Your task to perform on an android device: open app "Adobe Express: Graphic Design" (install if not already installed), go to login, and select forgot password Image 0: 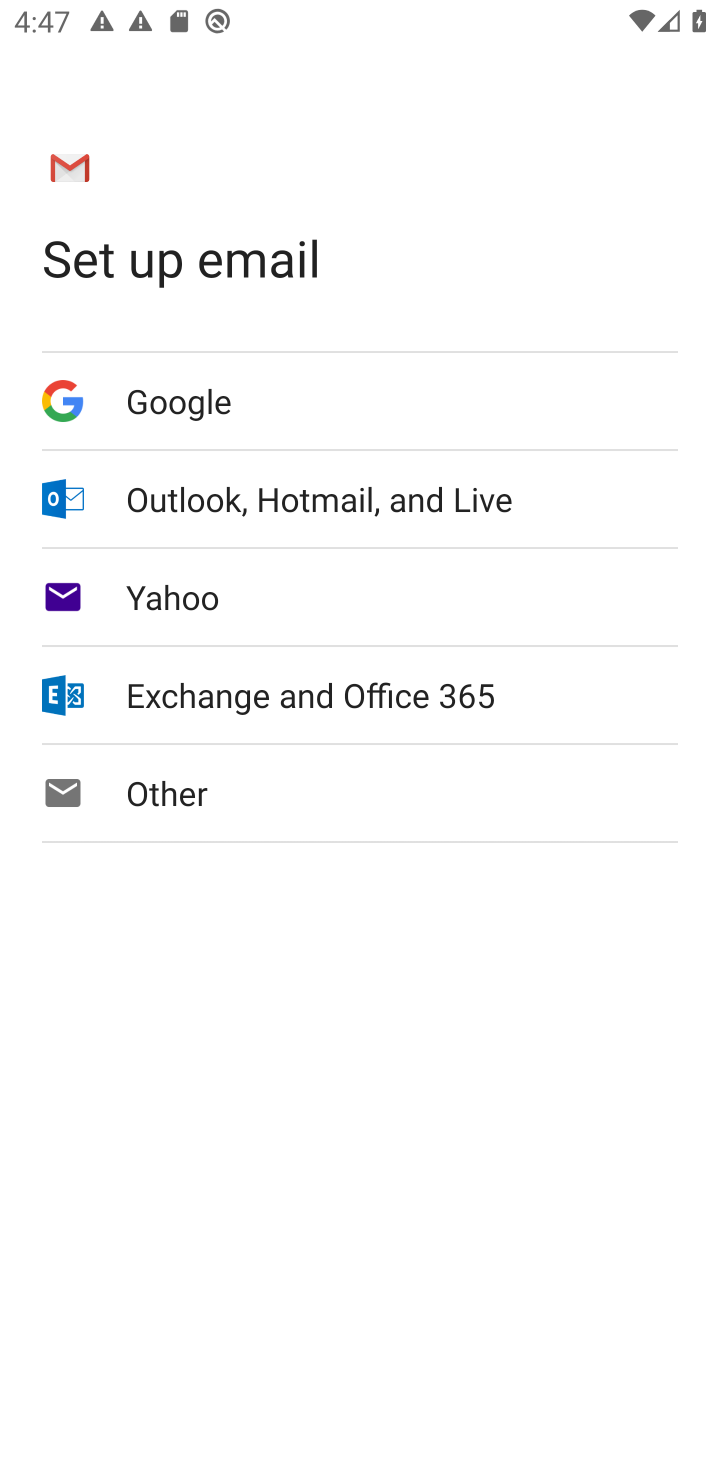
Step 0: press back button
Your task to perform on an android device: open app "Adobe Express: Graphic Design" (install if not already installed), go to login, and select forgot password Image 1: 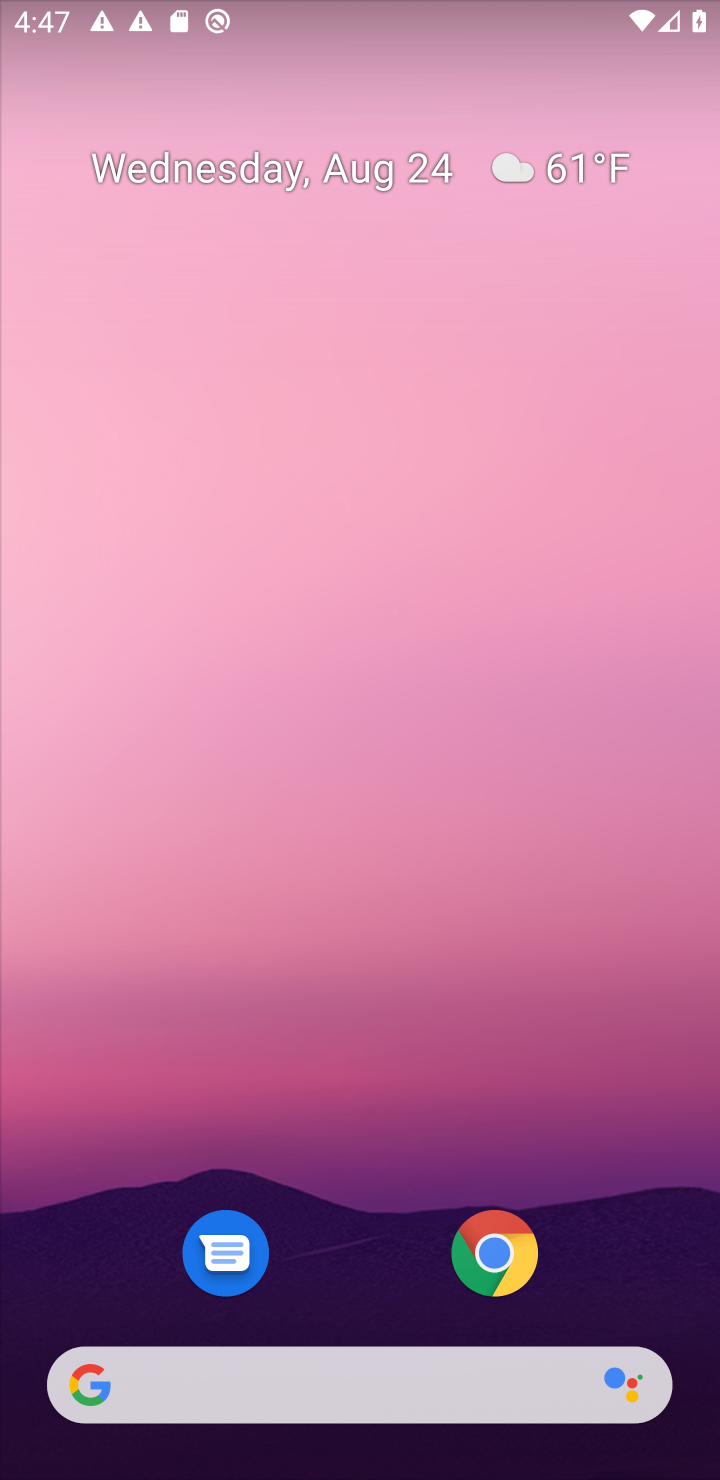
Step 1: drag from (409, 1180) to (435, 265)
Your task to perform on an android device: open app "Adobe Express: Graphic Design" (install if not already installed), go to login, and select forgot password Image 2: 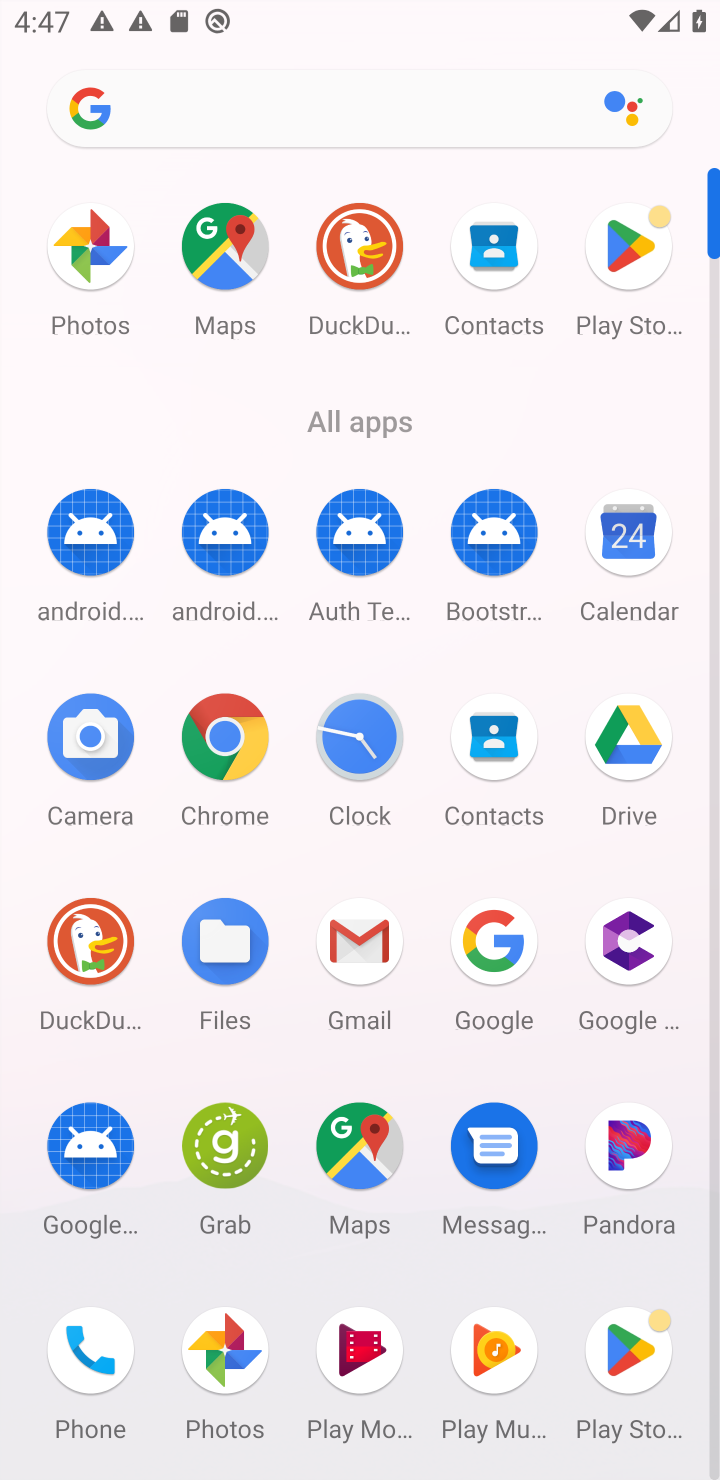
Step 2: click (627, 226)
Your task to perform on an android device: open app "Adobe Express: Graphic Design" (install if not already installed), go to login, and select forgot password Image 3: 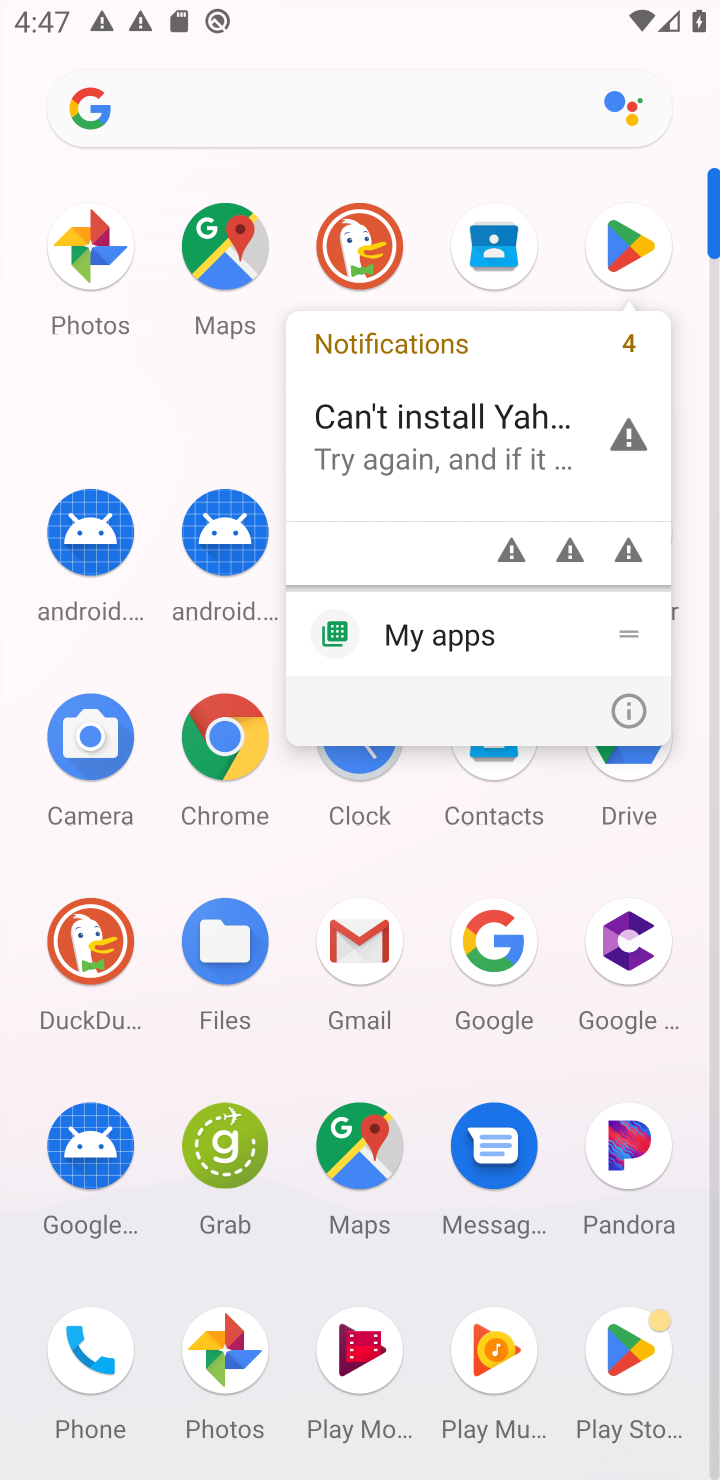
Step 3: click (631, 236)
Your task to perform on an android device: open app "Adobe Express: Graphic Design" (install if not already installed), go to login, and select forgot password Image 4: 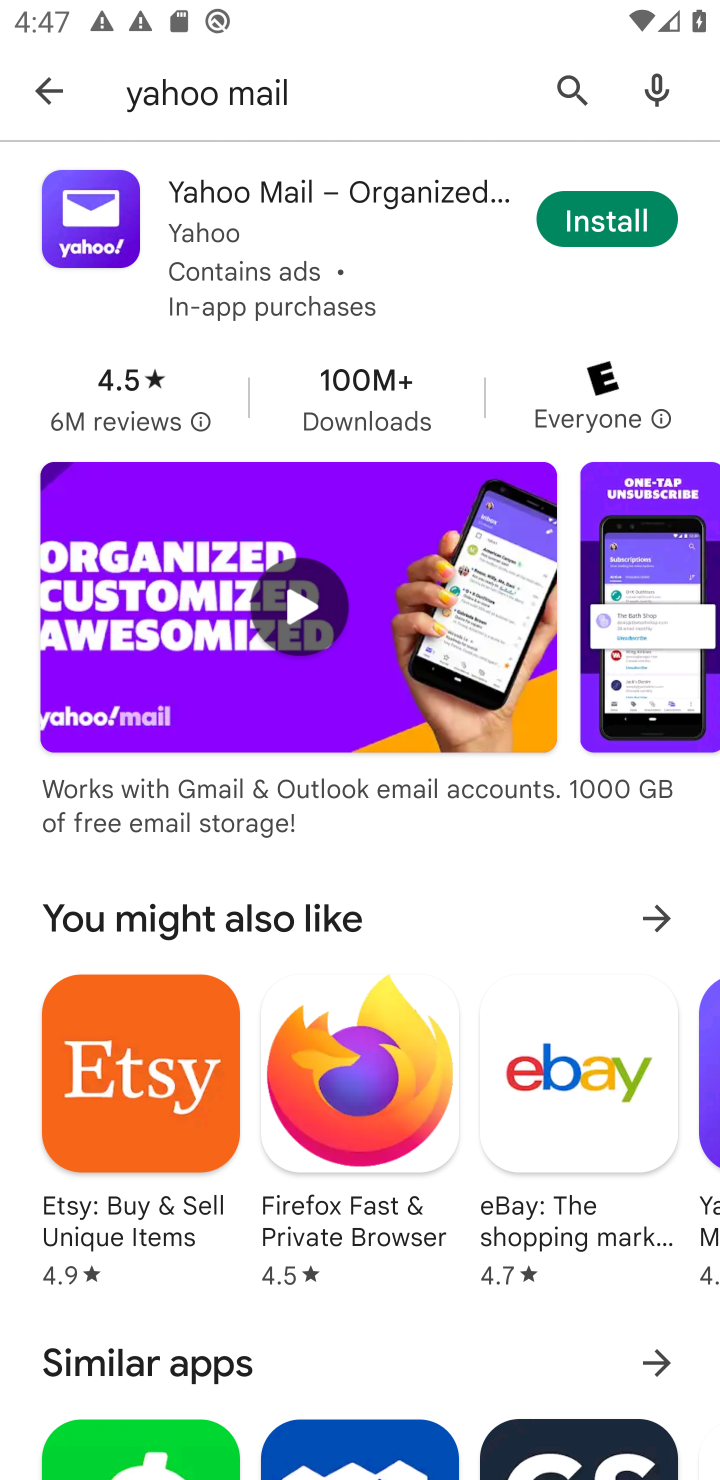
Step 4: click (570, 97)
Your task to perform on an android device: open app "Adobe Express: Graphic Design" (install if not already installed), go to login, and select forgot password Image 5: 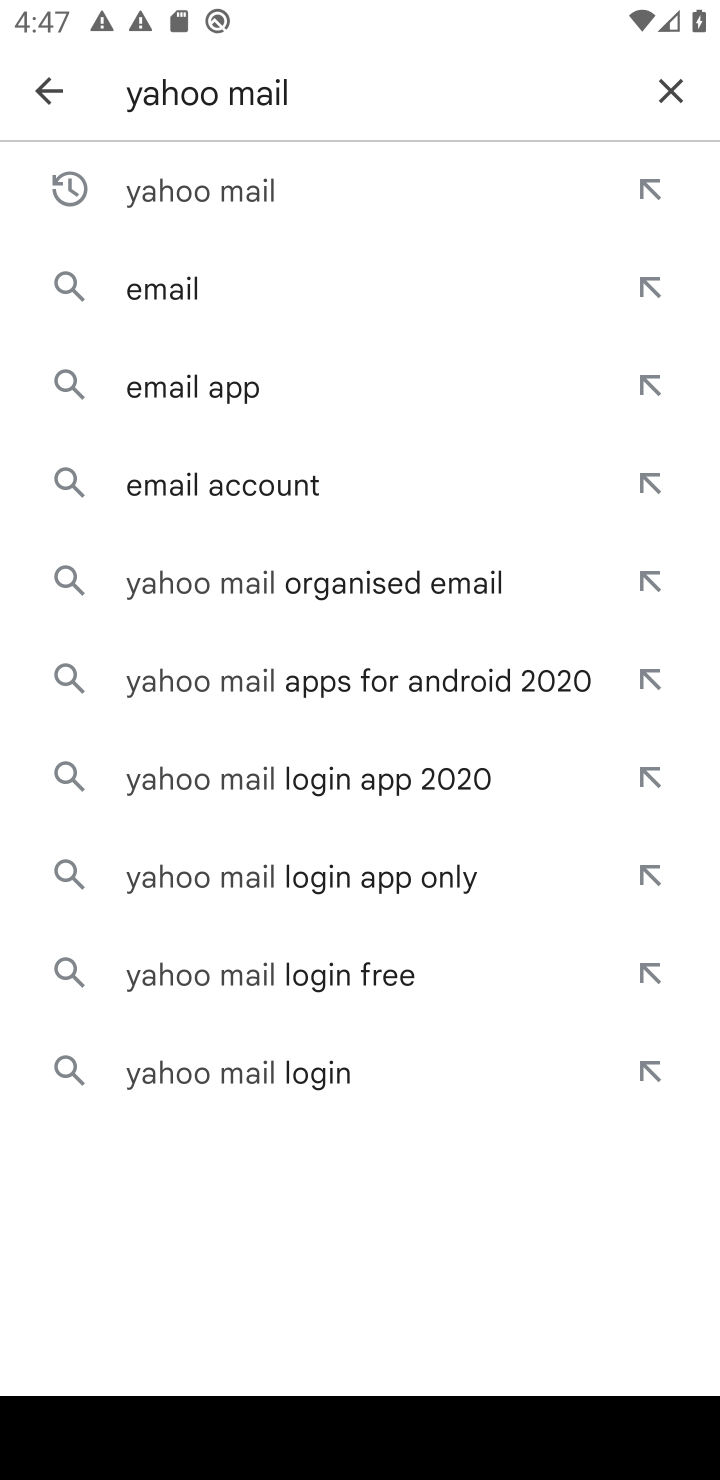
Step 5: click (657, 81)
Your task to perform on an android device: open app "Adobe Express: Graphic Design" (install if not already installed), go to login, and select forgot password Image 6: 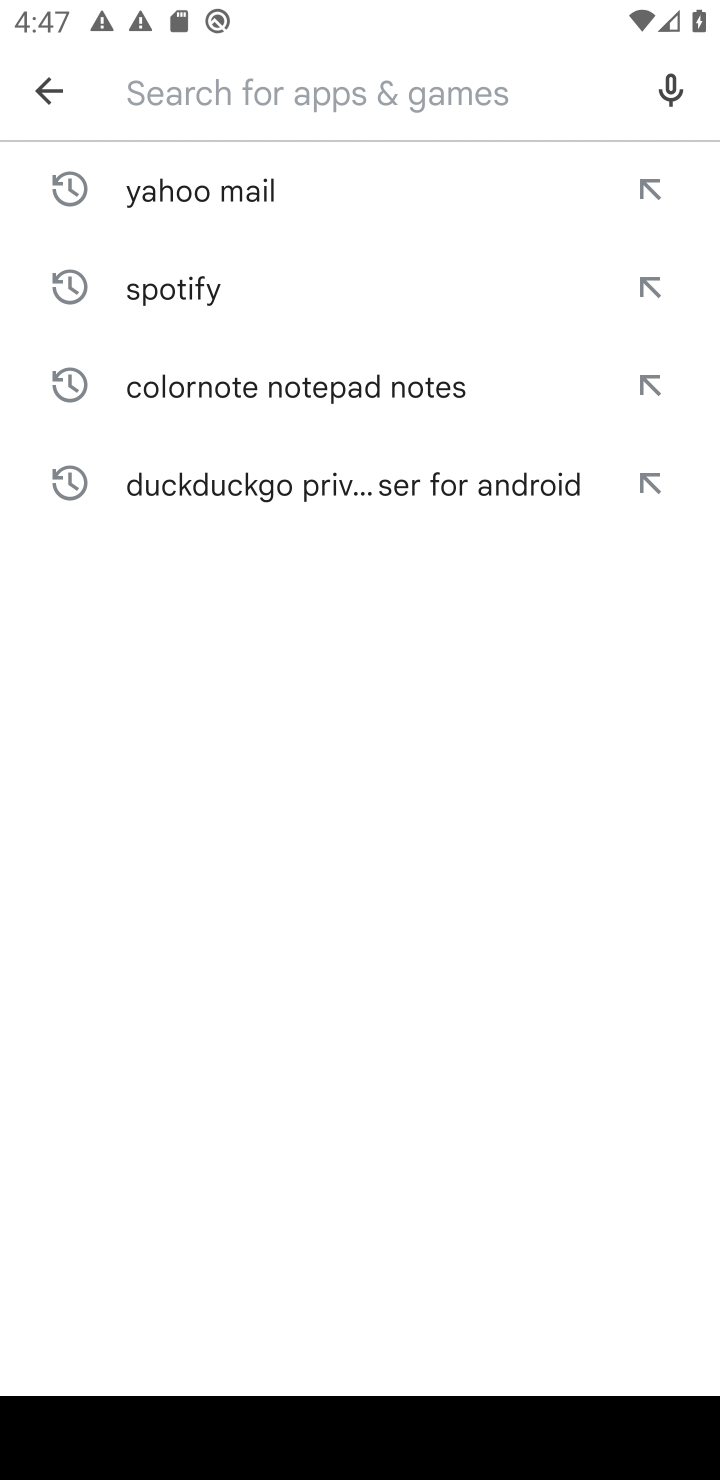
Step 6: click (205, 115)
Your task to perform on an android device: open app "Adobe Express: Graphic Design" (install if not already installed), go to login, and select forgot password Image 7: 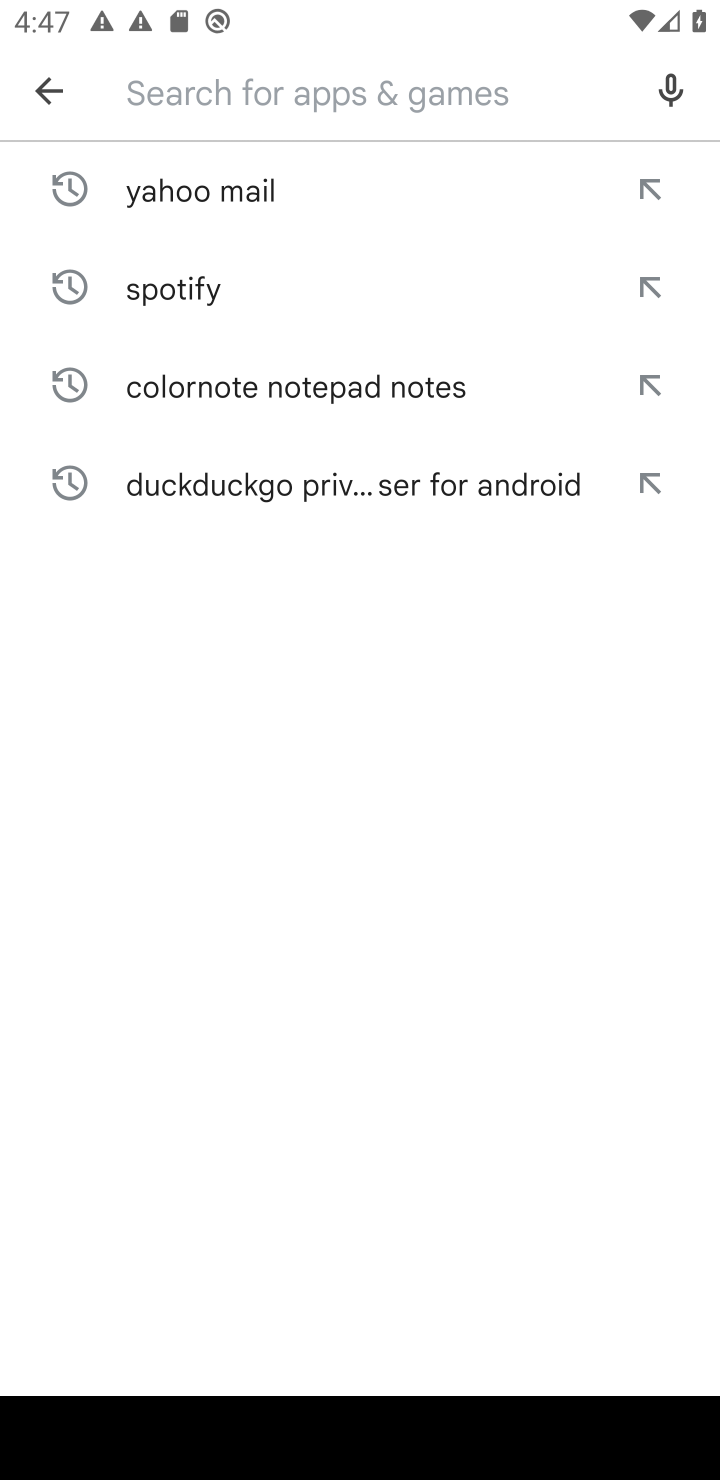
Step 7: type "Adobe Express: Graphic Design"
Your task to perform on an android device: open app "Adobe Express: Graphic Design" (install if not already installed), go to login, and select forgot password Image 8: 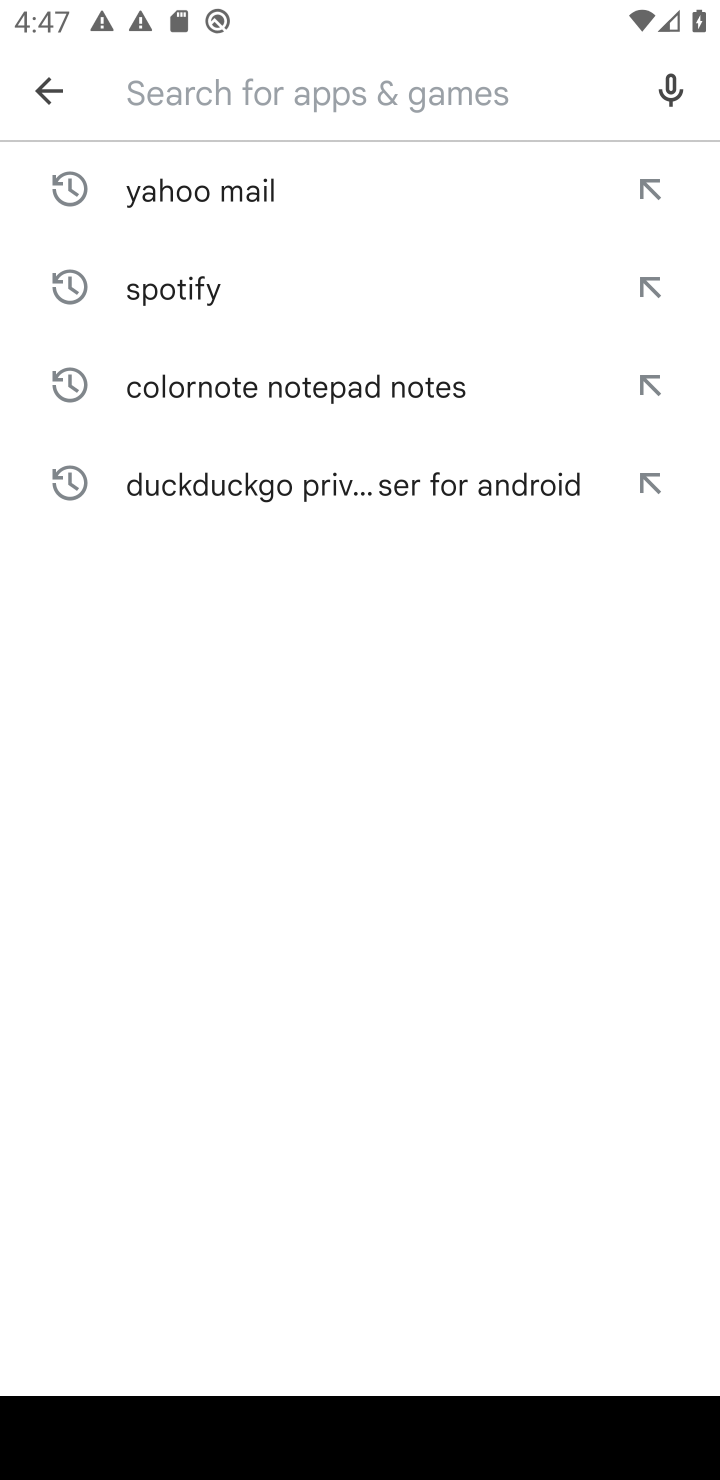
Step 8: click (247, 1031)
Your task to perform on an android device: open app "Adobe Express: Graphic Design" (install if not already installed), go to login, and select forgot password Image 9: 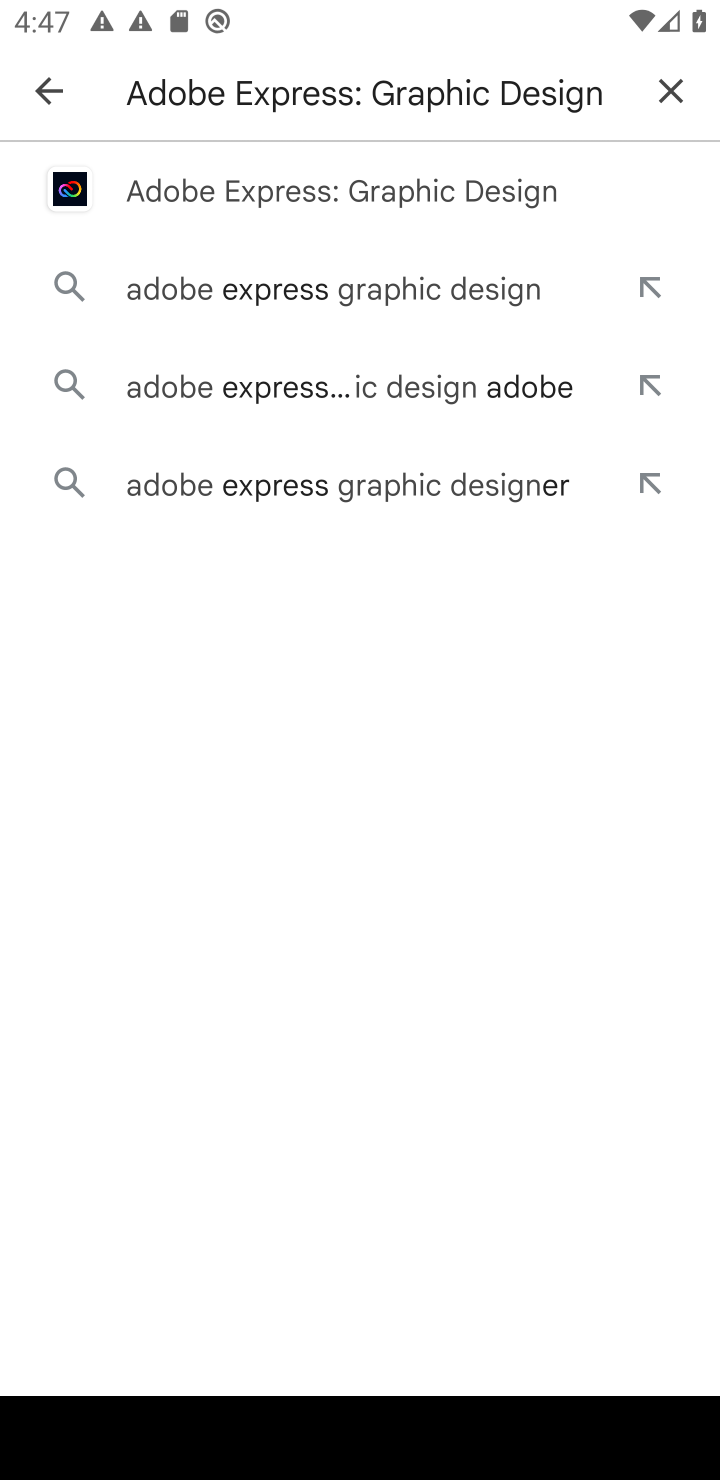
Step 9: click (242, 177)
Your task to perform on an android device: open app "Adobe Express: Graphic Design" (install if not already installed), go to login, and select forgot password Image 10: 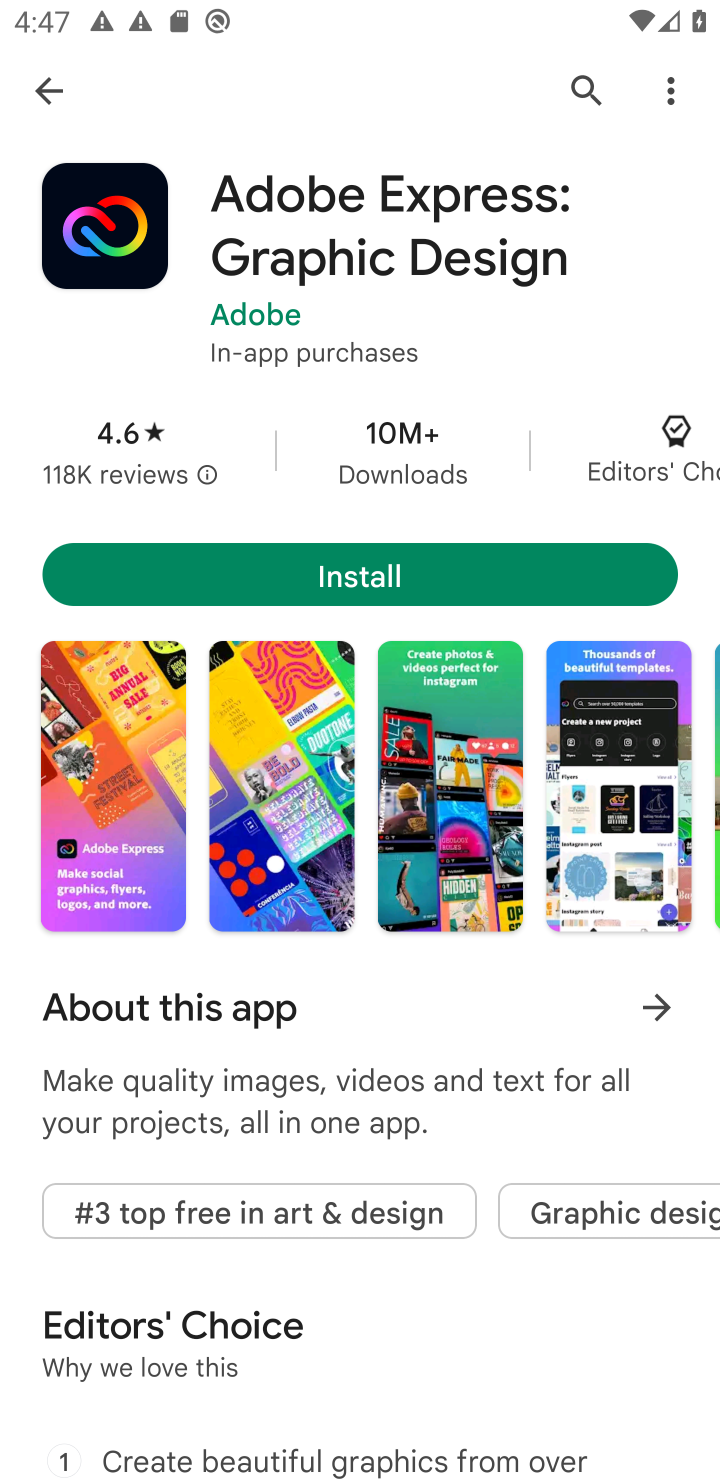
Step 10: click (384, 589)
Your task to perform on an android device: open app "Adobe Express: Graphic Design" (install if not already installed), go to login, and select forgot password Image 11: 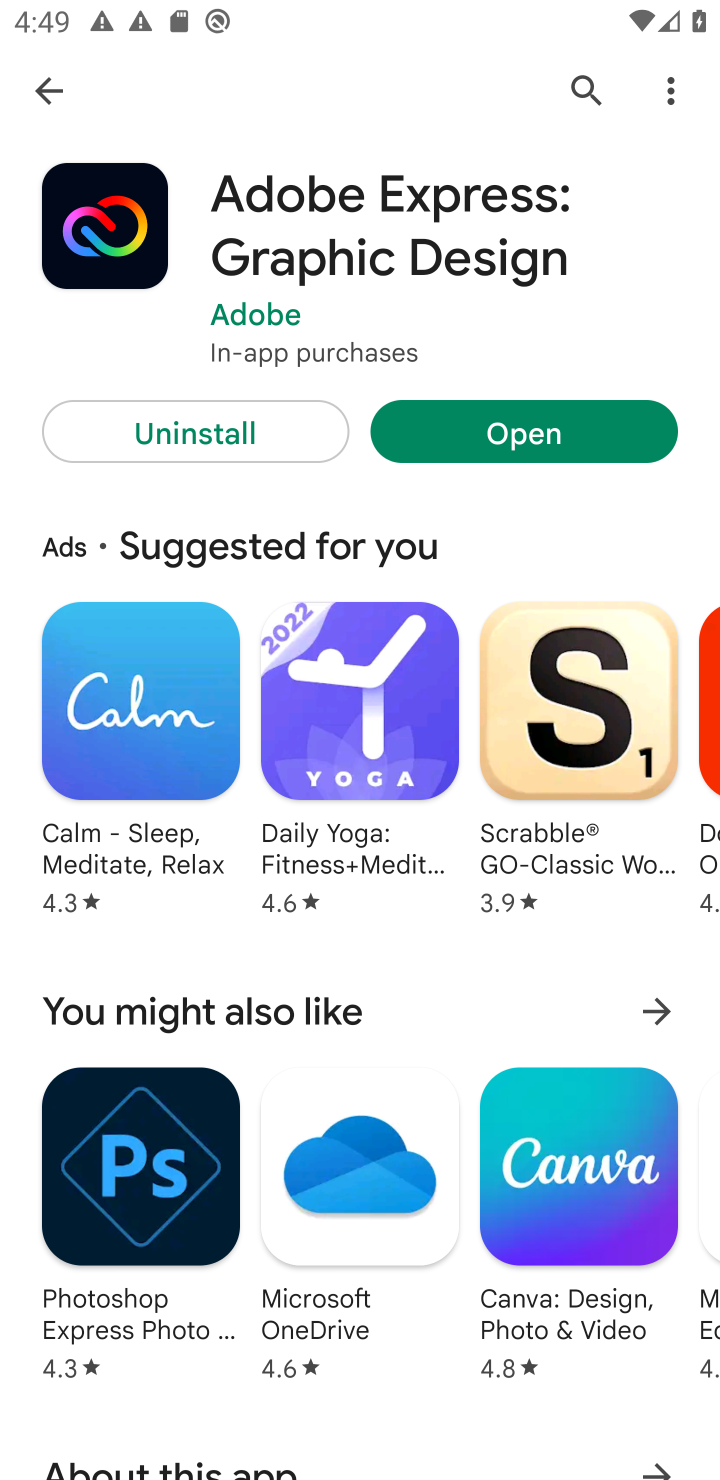
Step 11: click (554, 443)
Your task to perform on an android device: open app "Adobe Express: Graphic Design" (install if not already installed), go to login, and select forgot password Image 12: 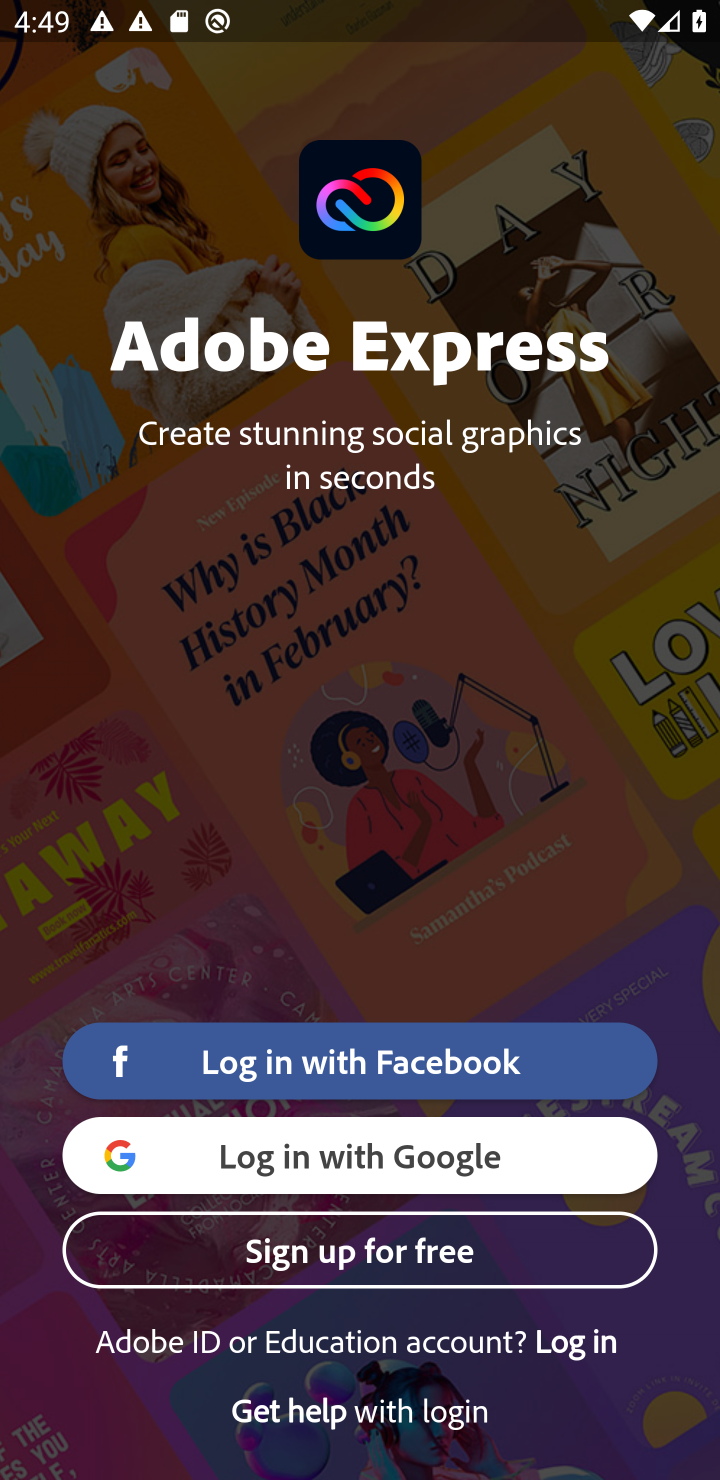
Step 12: click (571, 1343)
Your task to perform on an android device: open app "Adobe Express: Graphic Design" (install if not already installed), go to login, and select forgot password Image 13: 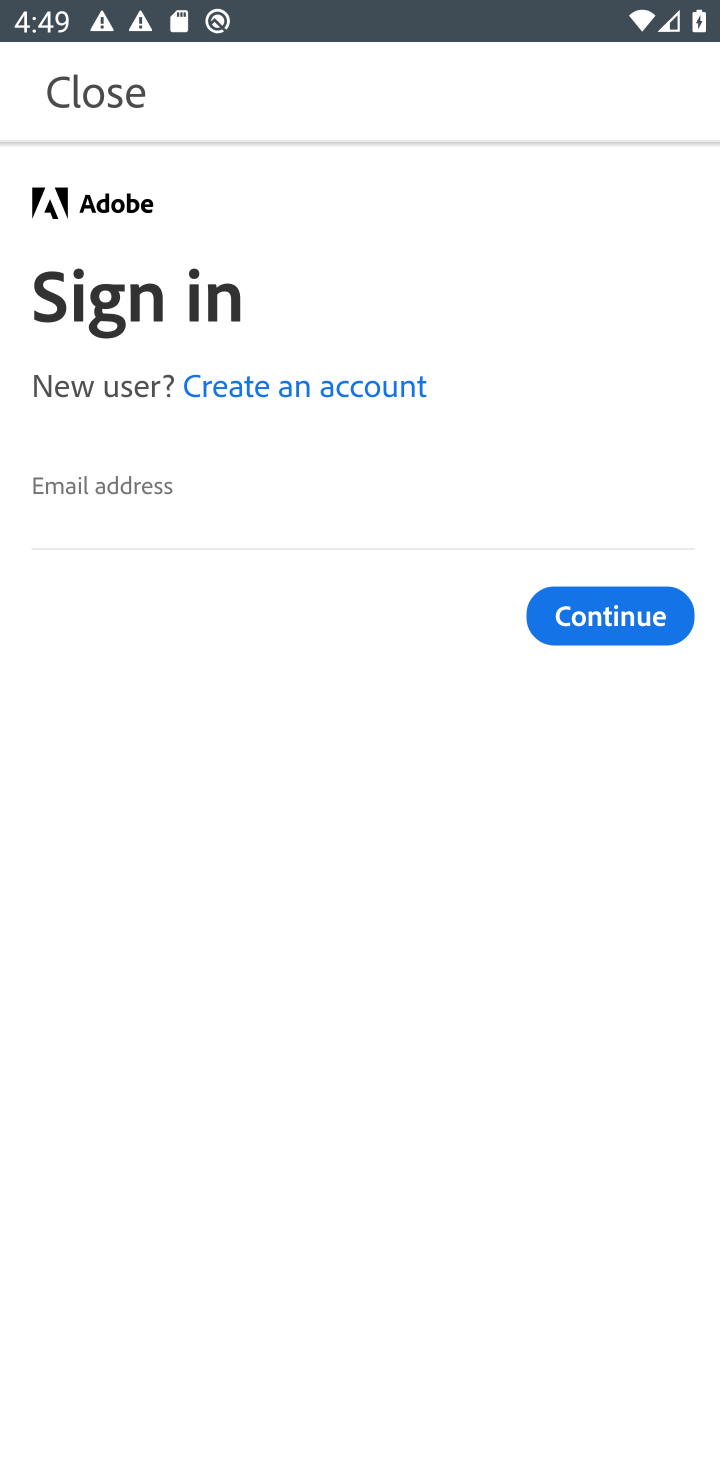
Step 13: task complete